Your task to perform on an android device: set default search engine in the chrome app Image 0: 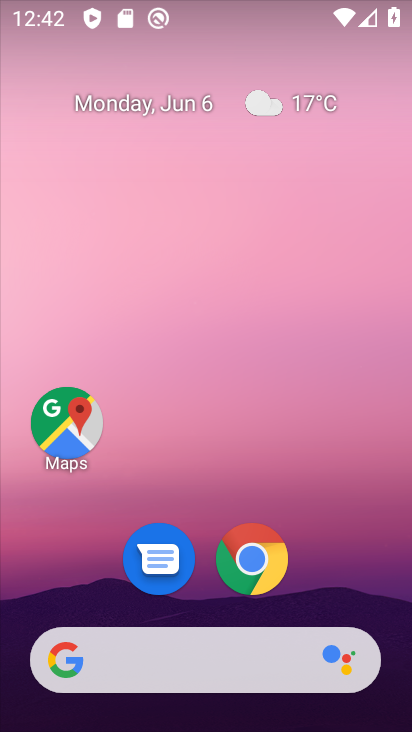
Step 0: drag from (251, 519) to (262, 122)
Your task to perform on an android device: set default search engine in the chrome app Image 1: 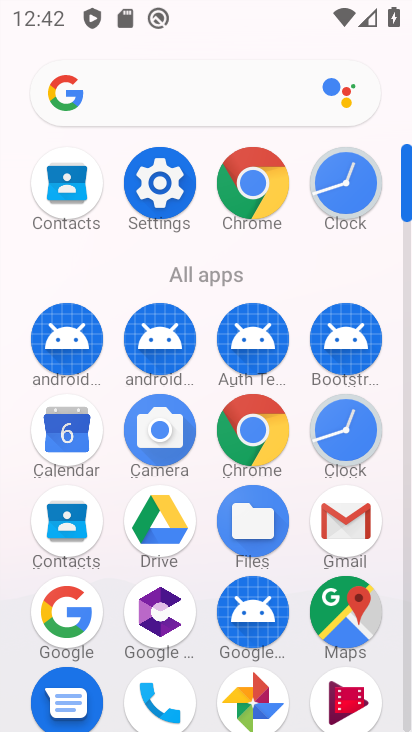
Step 1: click (264, 209)
Your task to perform on an android device: set default search engine in the chrome app Image 2: 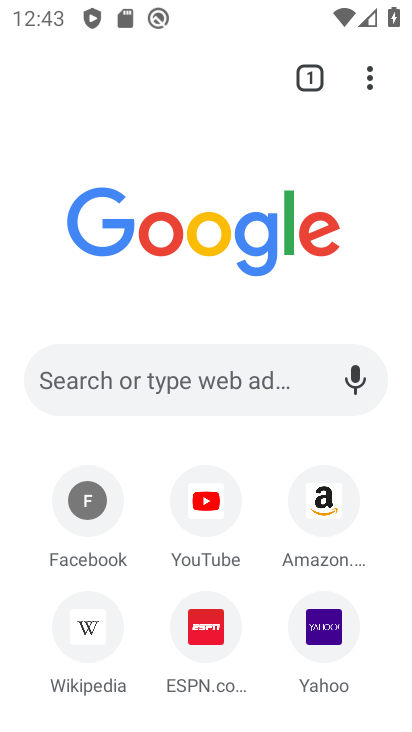
Step 2: click (388, 80)
Your task to perform on an android device: set default search engine in the chrome app Image 3: 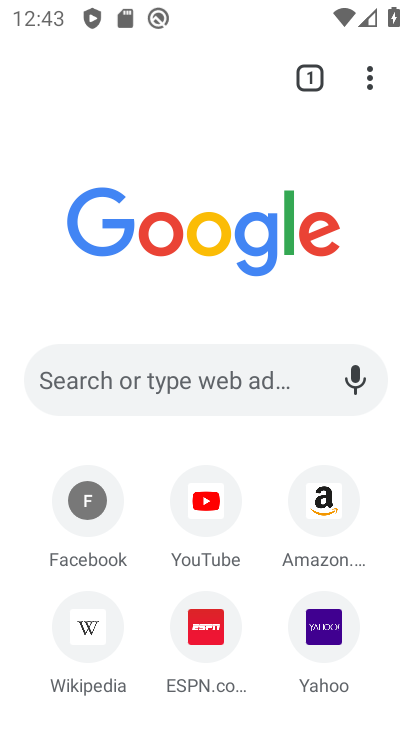
Step 3: click (372, 80)
Your task to perform on an android device: set default search engine in the chrome app Image 4: 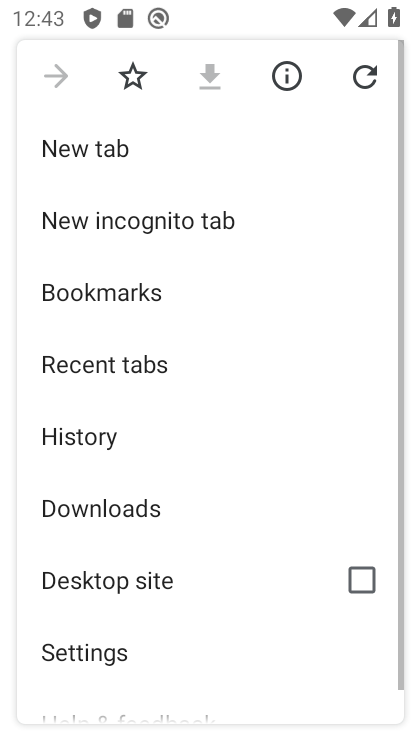
Step 4: drag from (208, 442) to (212, 164)
Your task to perform on an android device: set default search engine in the chrome app Image 5: 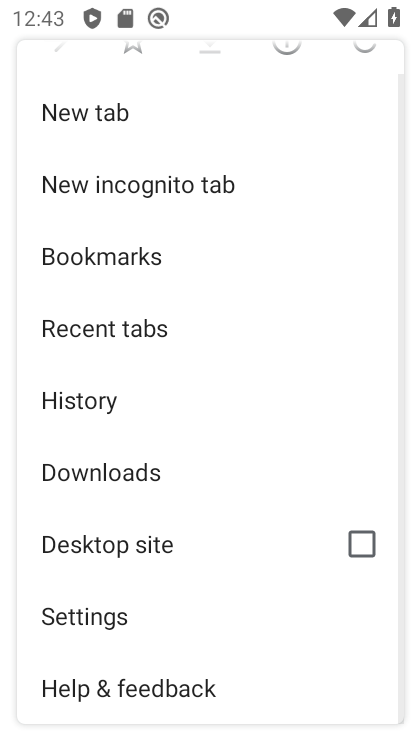
Step 5: click (93, 604)
Your task to perform on an android device: set default search engine in the chrome app Image 6: 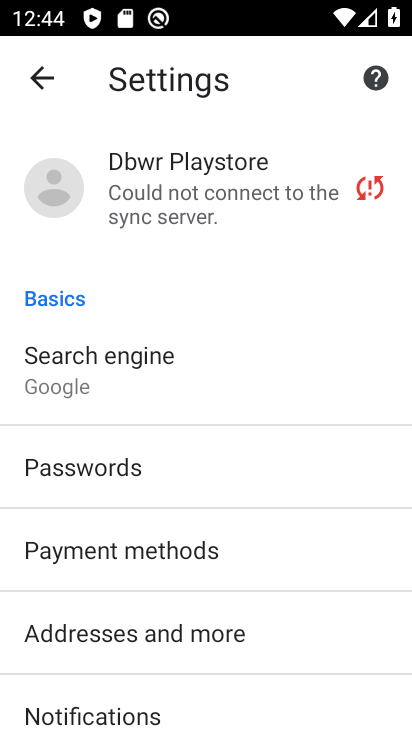
Step 6: click (179, 391)
Your task to perform on an android device: set default search engine in the chrome app Image 7: 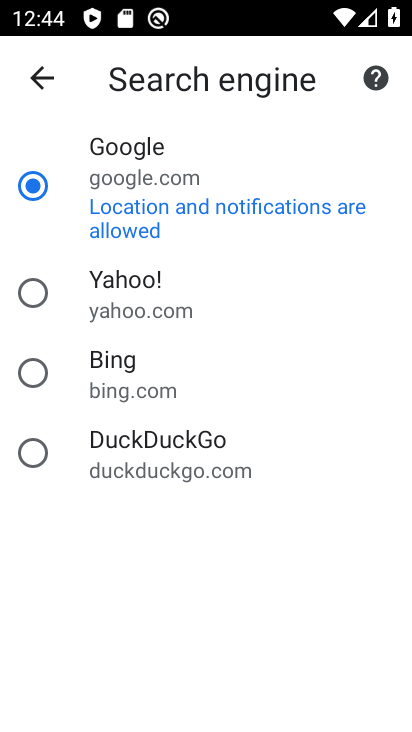
Step 7: task complete